Your task to perform on an android device: Do I have any events tomorrow? Image 0: 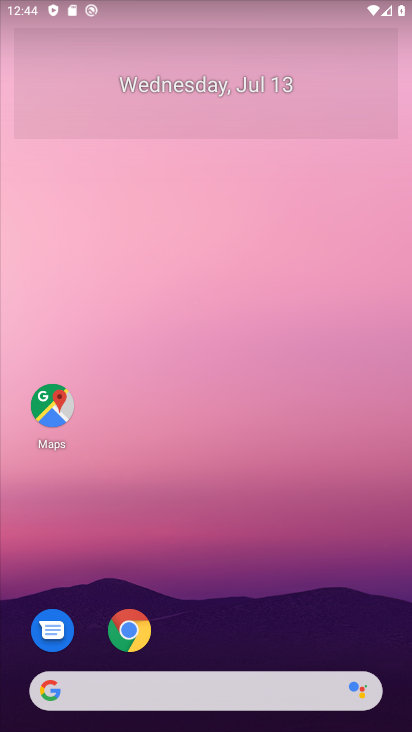
Step 0: drag from (268, 623) to (0, 43)
Your task to perform on an android device: Do I have any events tomorrow? Image 1: 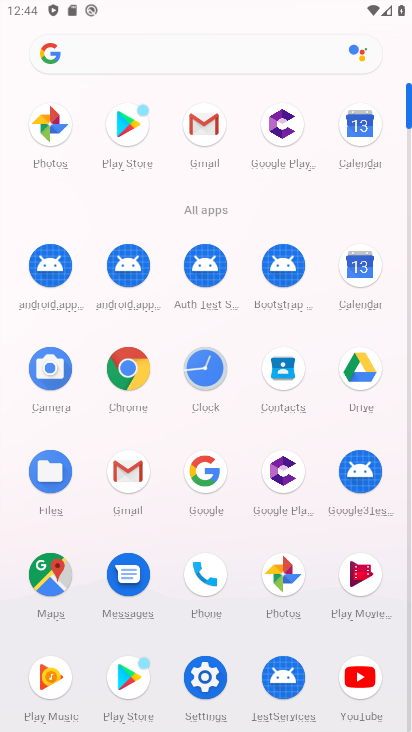
Step 1: click (353, 261)
Your task to perform on an android device: Do I have any events tomorrow? Image 2: 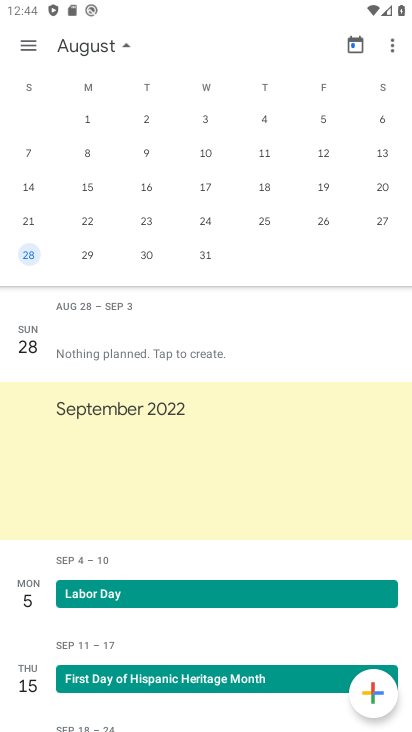
Step 2: click (84, 261)
Your task to perform on an android device: Do I have any events tomorrow? Image 3: 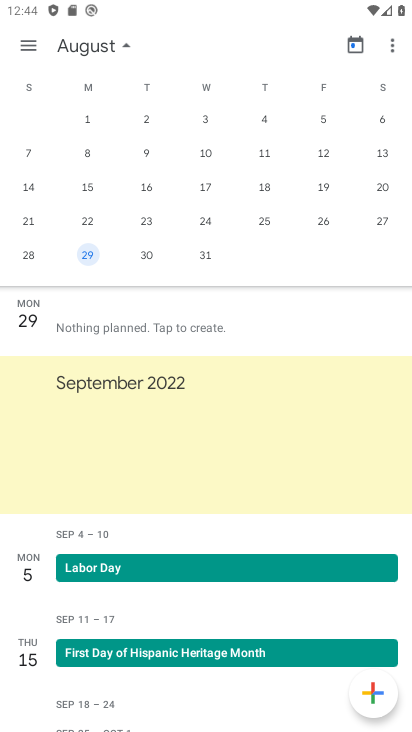
Step 3: task complete